Your task to perform on an android device: Is it going to rain today? Image 0: 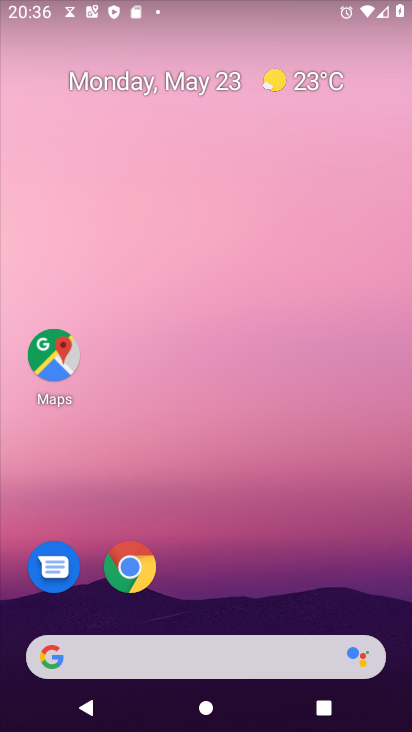
Step 0: click (135, 563)
Your task to perform on an android device: Is it going to rain today? Image 1: 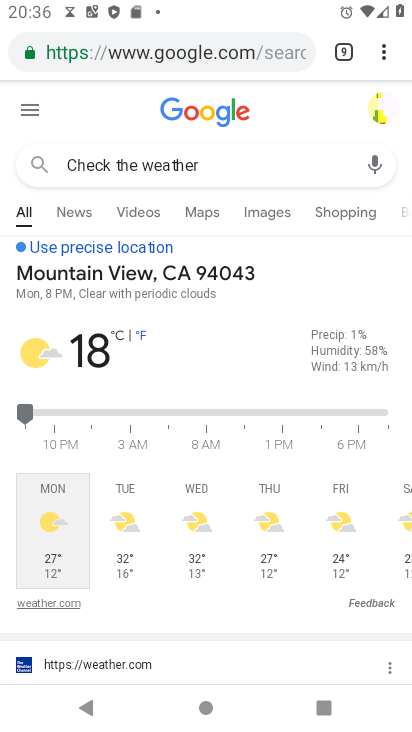
Step 1: click (388, 46)
Your task to perform on an android device: Is it going to rain today? Image 2: 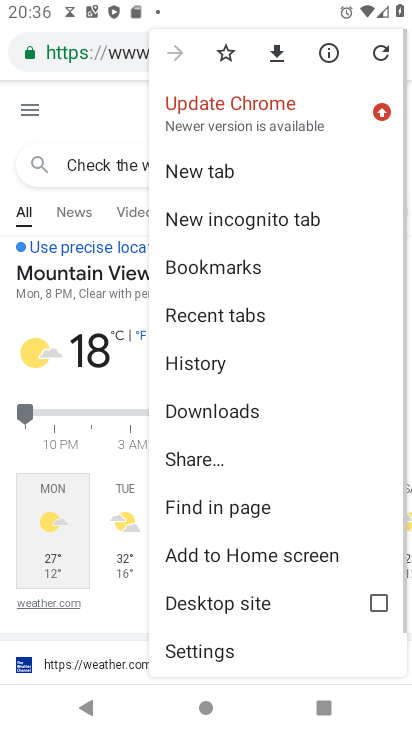
Step 2: click (222, 160)
Your task to perform on an android device: Is it going to rain today? Image 3: 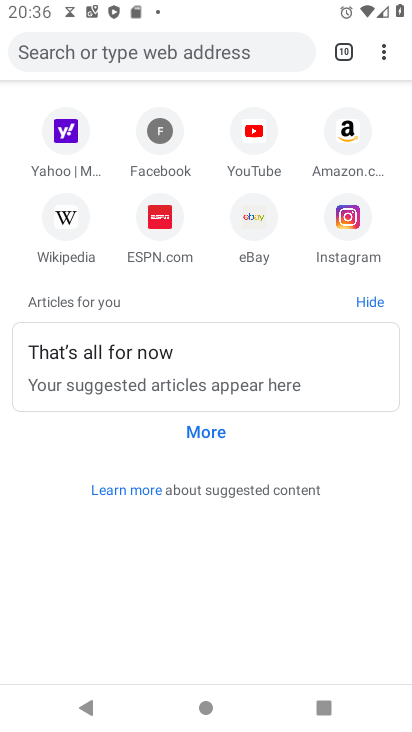
Step 3: click (128, 47)
Your task to perform on an android device: Is it going to rain today? Image 4: 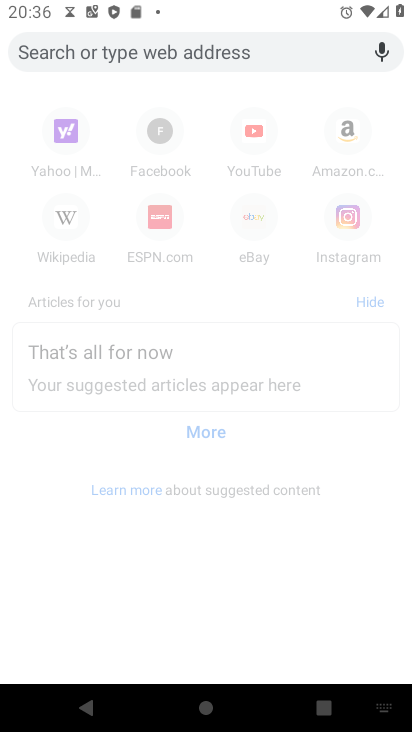
Step 4: type "Is it going to rain today?"
Your task to perform on an android device: Is it going to rain today? Image 5: 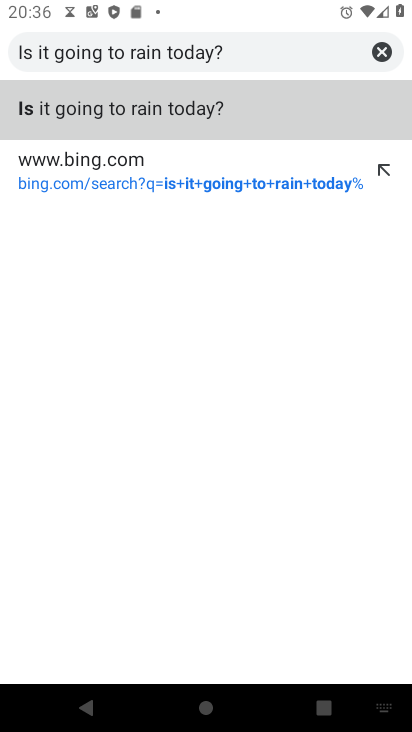
Step 5: click (172, 106)
Your task to perform on an android device: Is it going to rain today? Image 6: 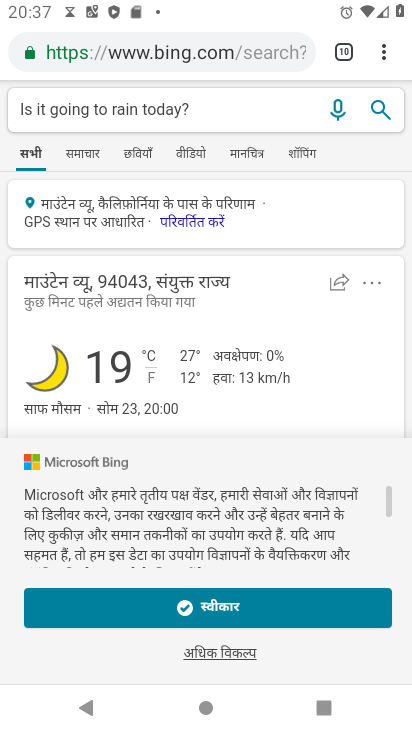
Step 6: task complete